Your task to perform on an android device: Go to Reddit.com Image 0: 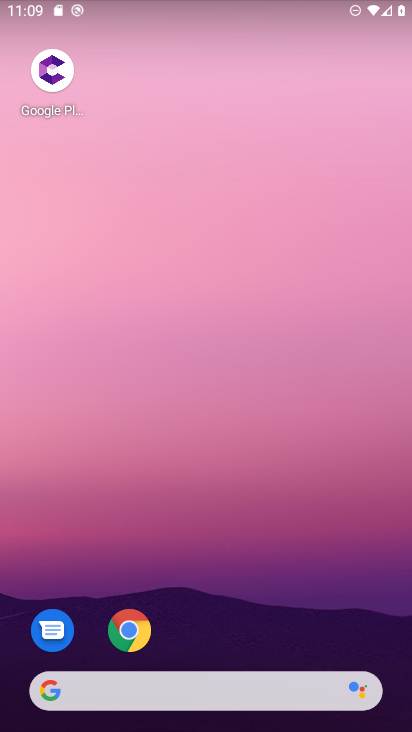
Step 0: click (129, 629)
Your task to perform on an android device: Go to Reddit.com Image 1: 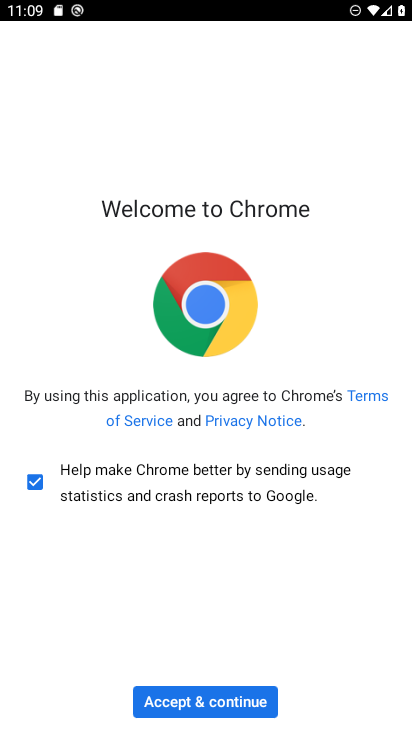
Step 1: click (165, 706)
Your task to perform on an android device: Go to Reddit.com Image 2: 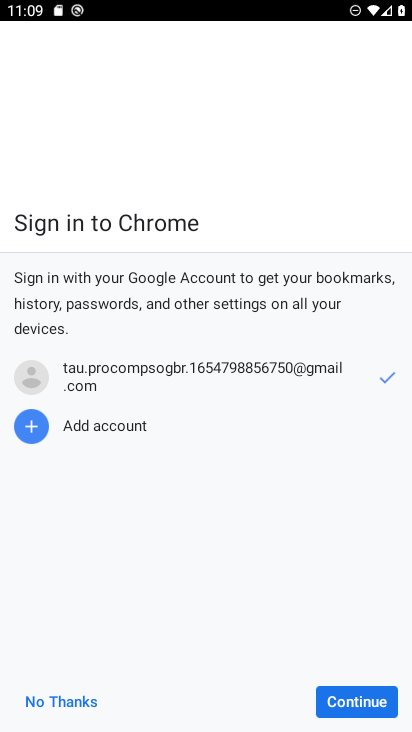
Step 2: click (399, 683)
Your task to perform on an android device: Go to Reddit.com Image 3: 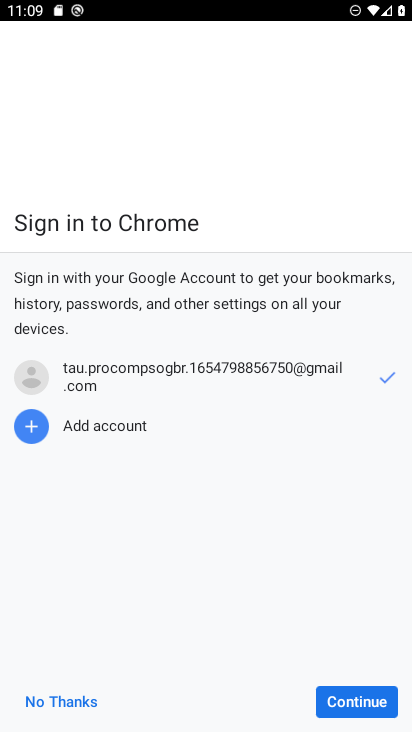
Step 3: click (357, 699)
Your task to perform on an android device: Go to Reddit.com Image 4: 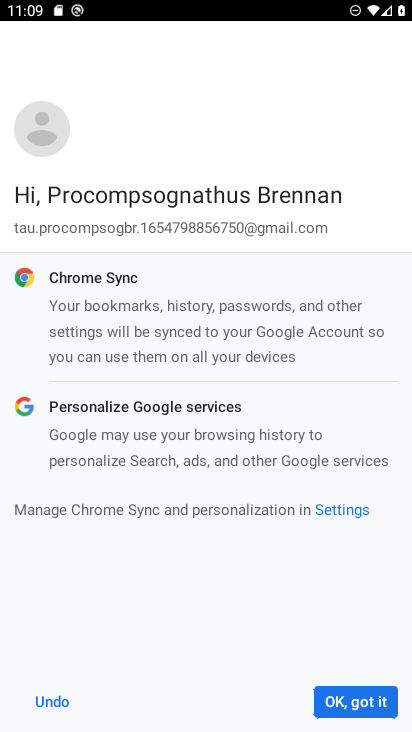
Step 4: click (349, 699)
Your task to perform on an android device: Go to Reddit.com Image 5: 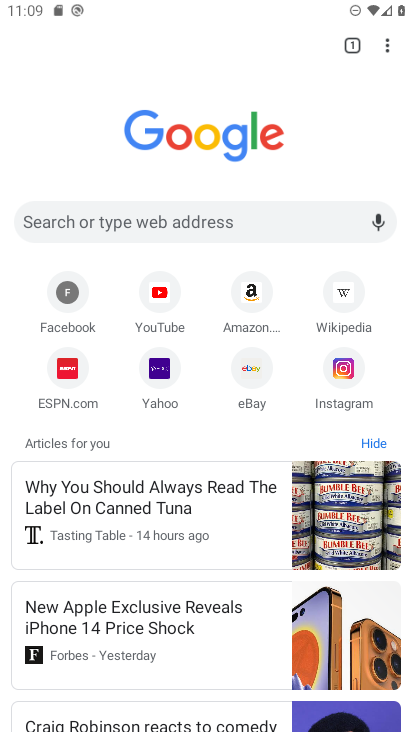
Step 5: click (238, 210)
Your task to perform on an android device: Go to Reddit.com Image 6: 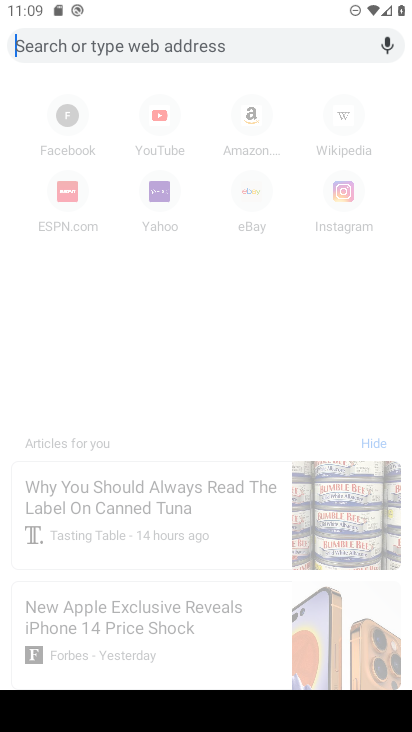
Step 6: type "www.reddit.com"
Your task to perform on an android device: Go to Reddit.com Image 7: 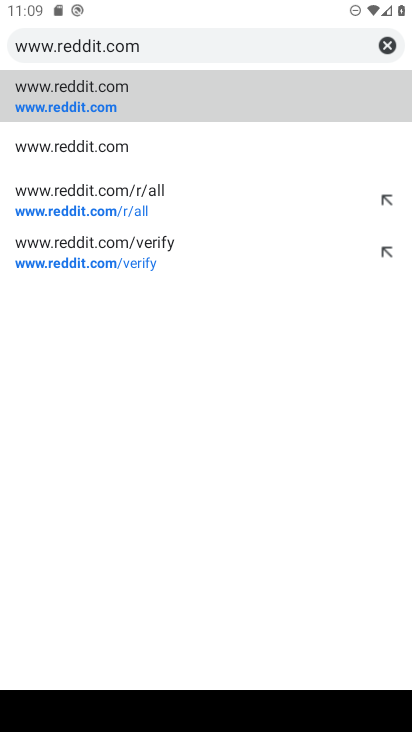
Step 7: click (61, 108)
Your task to perform on an android device: Go to Reddit.com Image 8: 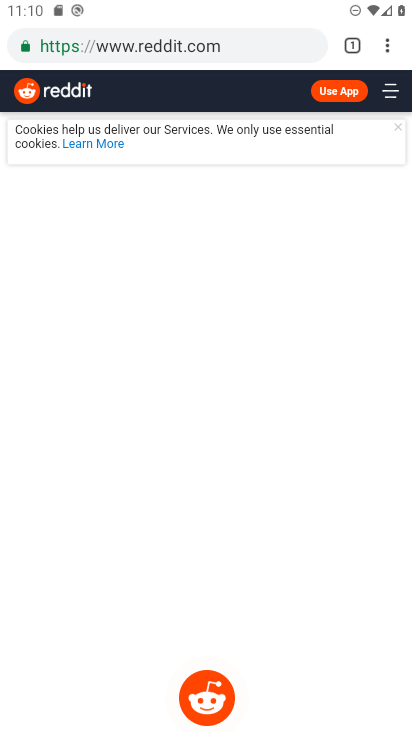
Step 8: task complete